Your task to perform on an android device: turn on airplane mode Image 0: 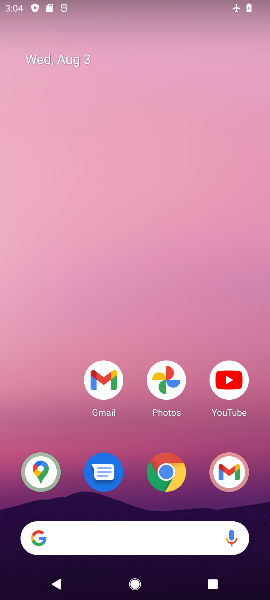
Step 0: drag from (199, 486) to (33, 96)
Your task to perform on an android device: turn on airplane mode Image 1: 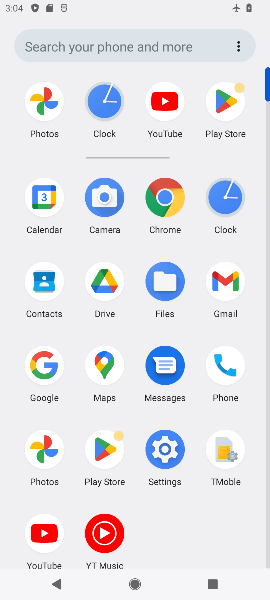
Step 1: task complete